Your task to perform on an android device: Open Maps and search for coffee Image 0: 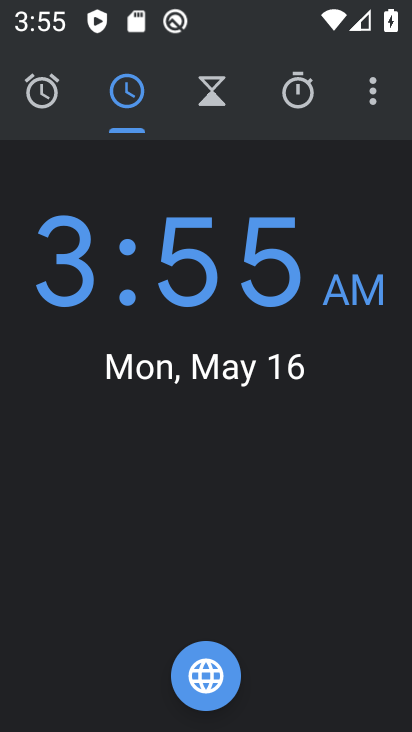
Step 0: press home button
Your task to perform on an android device: Open Maps and search for coffee Image 1: 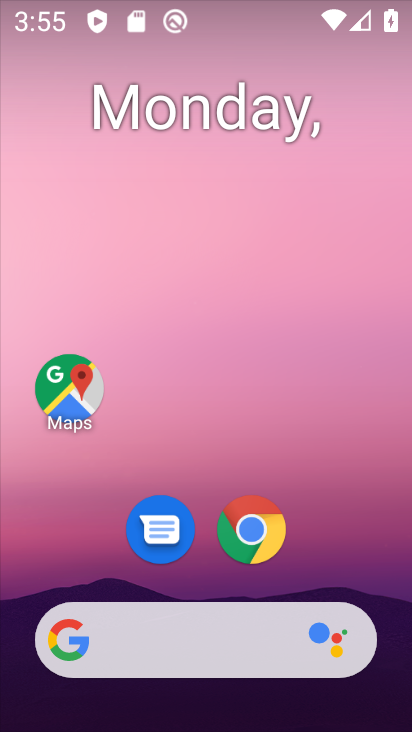
Step 1: drag from (215, 527) to (186, 27)
Your task to perform on an android device: Open Maps and search for coffee Image 2: 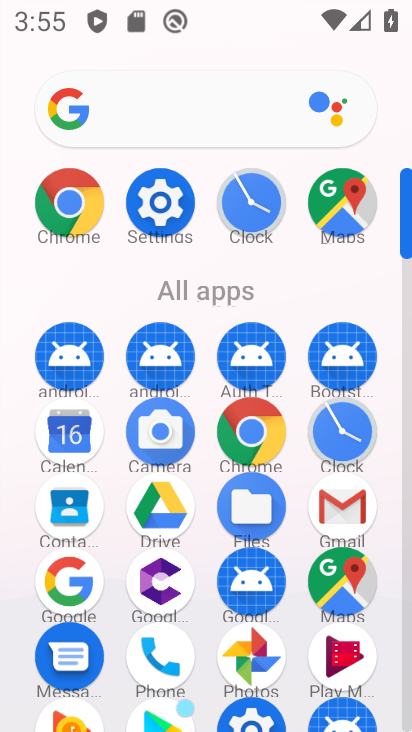
Step 2: click (332, 576)
Your task to perform on an android device: Open Maps and search for coffee Image 3: 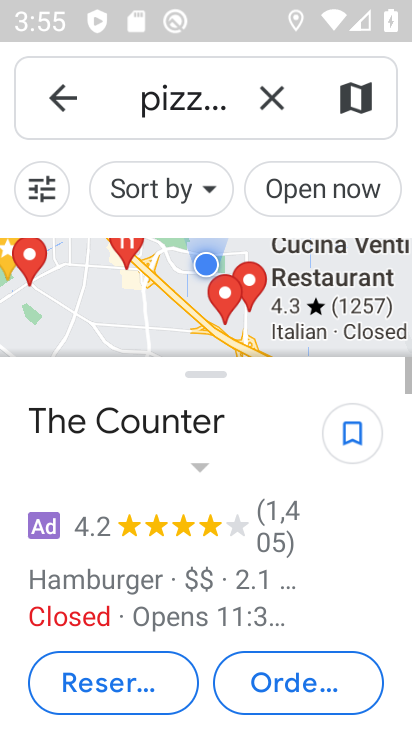
Step 3: click (59, 85)
Your task to perform on an android device: Open Maps and search for coffee Image 4: 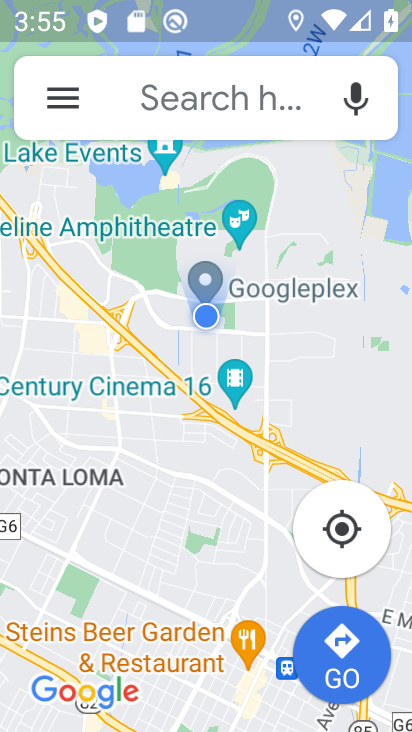
Step 4: click (262, 114)
Your task to perform on an android device: Open Maps and search for coffee Image 5: 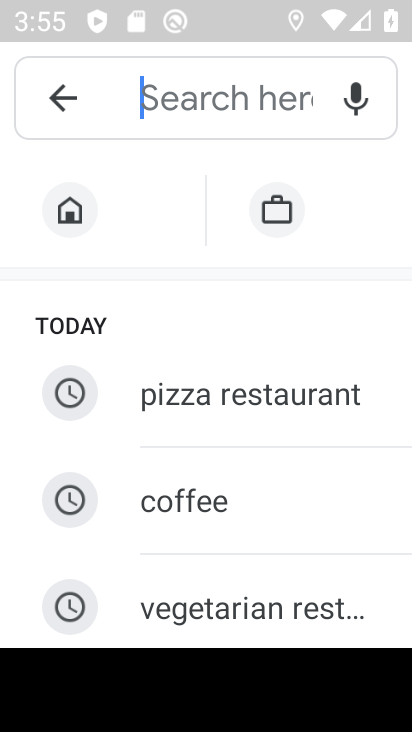
Step 5: type "coffee"
Your task to perform on an android device: Open Maps and search for coffee Image 6: 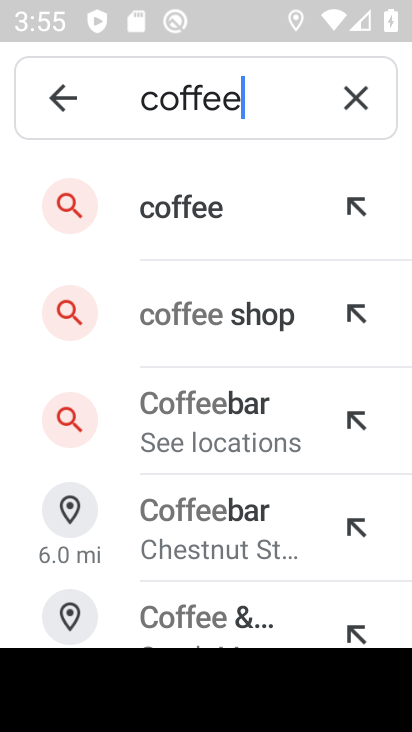
Step 6: click (199, 231)
Your task to perform on an android device: Open Maps and search for coffee Image 7: 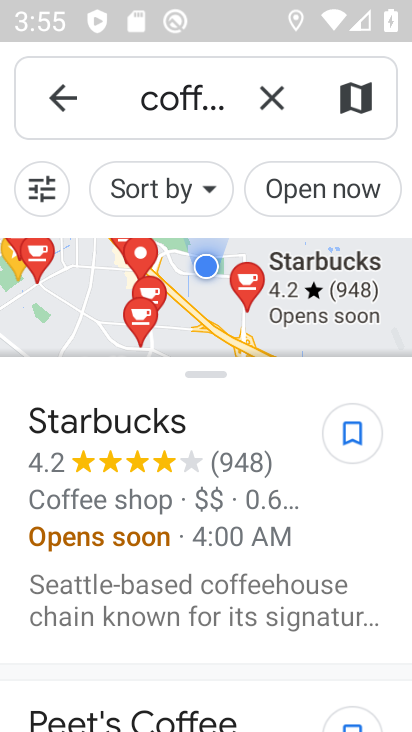
Step 7: task complete